Your task to perform on an android device: delete browsing data in the chrome app Image 0: 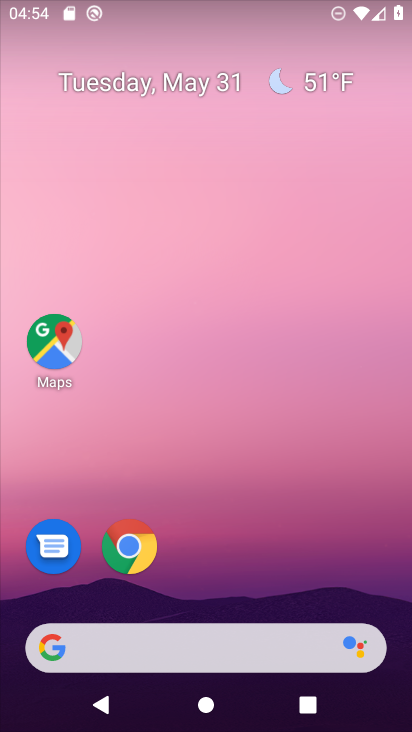
Step 0: click (131, 552)
Your task to perform on an android device: delete browsing data in the chrome app Image 1: 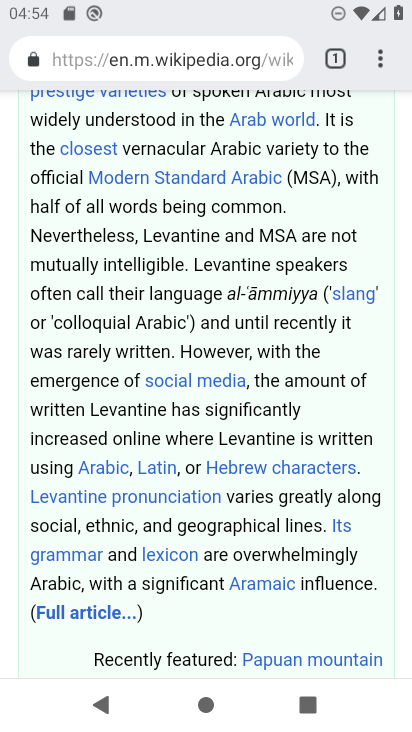
Step 1: drag from (322, 172) to (248, 443)
Your task to perform on an android device: delete browsing data in the chrome app Image 2: 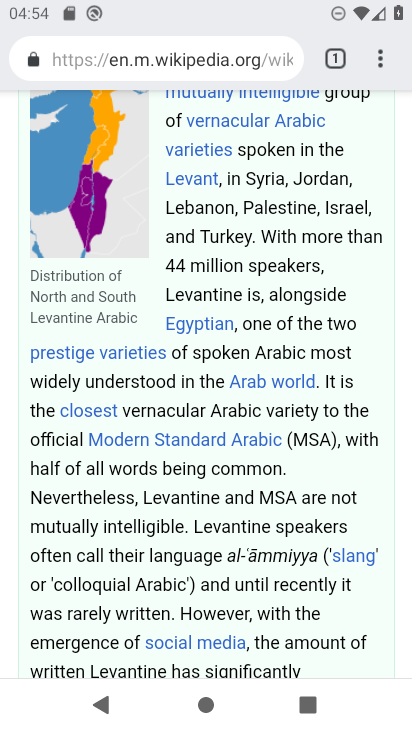
Step 2: click (383, 62)
Your task to perform on an android device: delete browsing data in the chrome app Image 3: 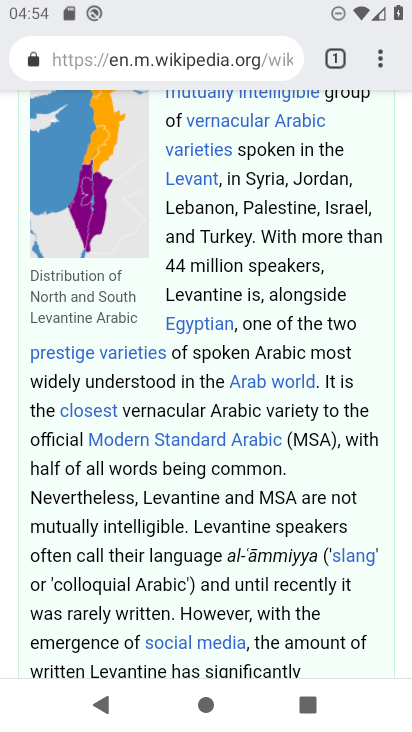
Step 3: click (381, 62)
Your task to perform on an android device: delete browsing data in the chrome app Image 4: 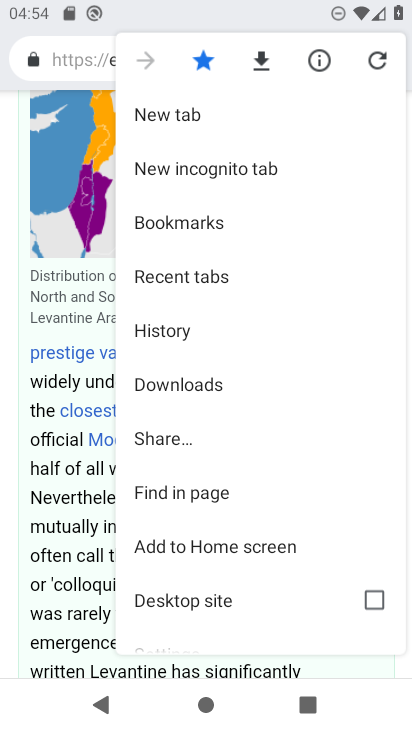
Step 4: click (181, 337)
Your task to perform on an android device: delete browsing data in the chrome app Image 5: 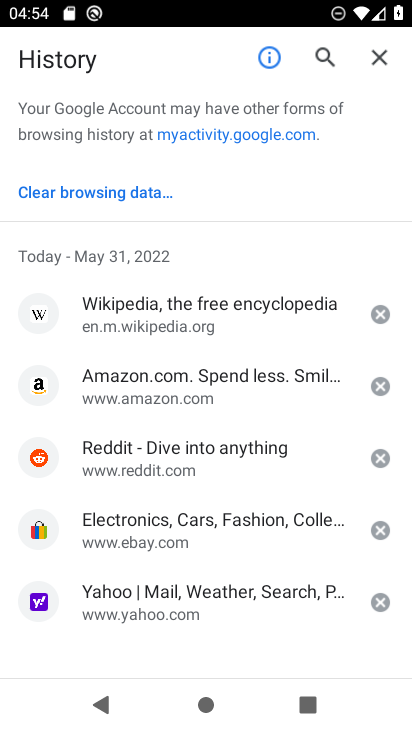
Step 5: click (96, 183)
Your task to perform on an android device: delete browsing data in the chrome app Image 6: 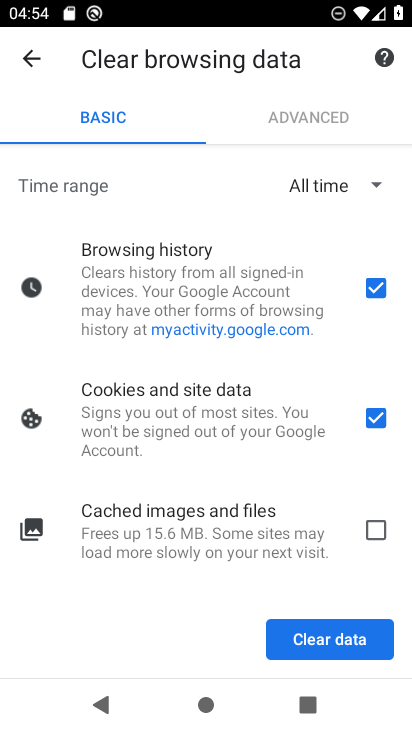
Step 6: click (375, 522)
Your task to perform on an android device: delete browsing data in the chrome app Image 7: 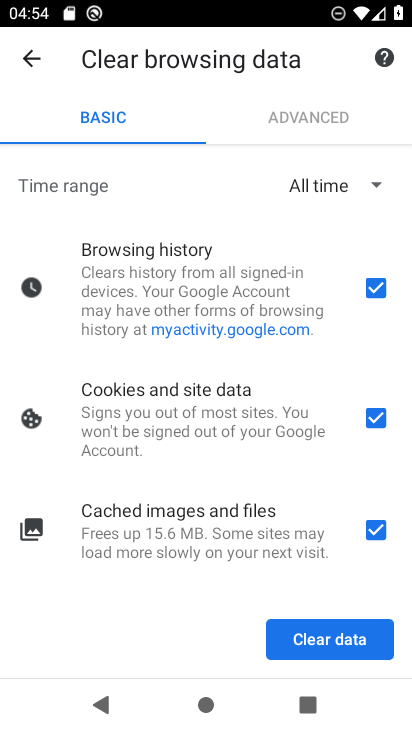
Step 7: click (320, 632)
Your task to perform on an android device: delete browsing data in the chrome app Image 8: 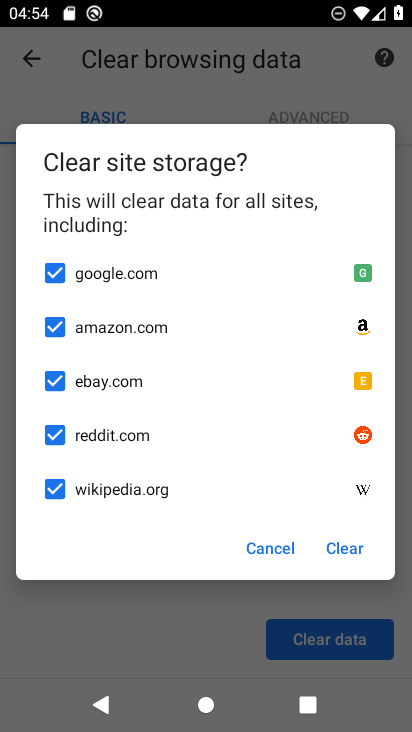
Step 8: click (347, 550)
Your task to perform on an android device: delete browsing data in the chrome app Image 9: 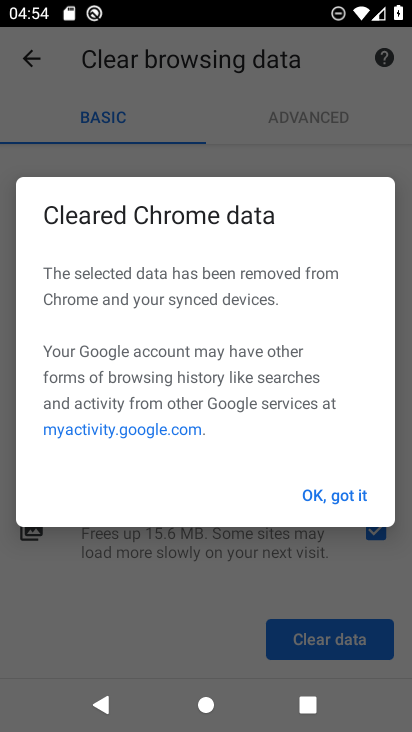
Step 9: click (361, 498)
Your task to perform on an android device: delete browsing data in the chrome app Image 10: 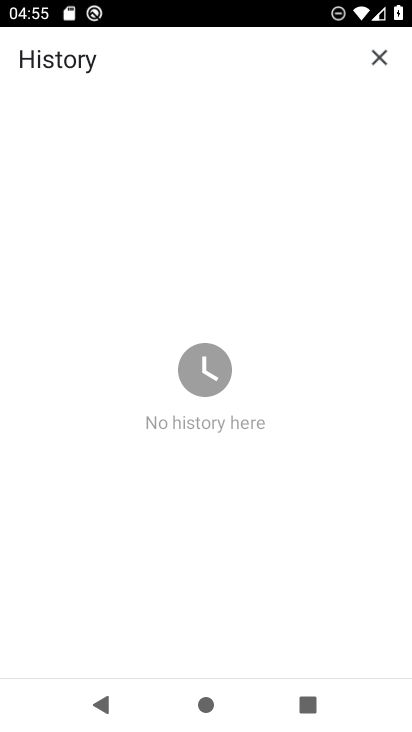
Step 10: task complete